Your task to perform on an android device: Turn off the flashlight Image 0: 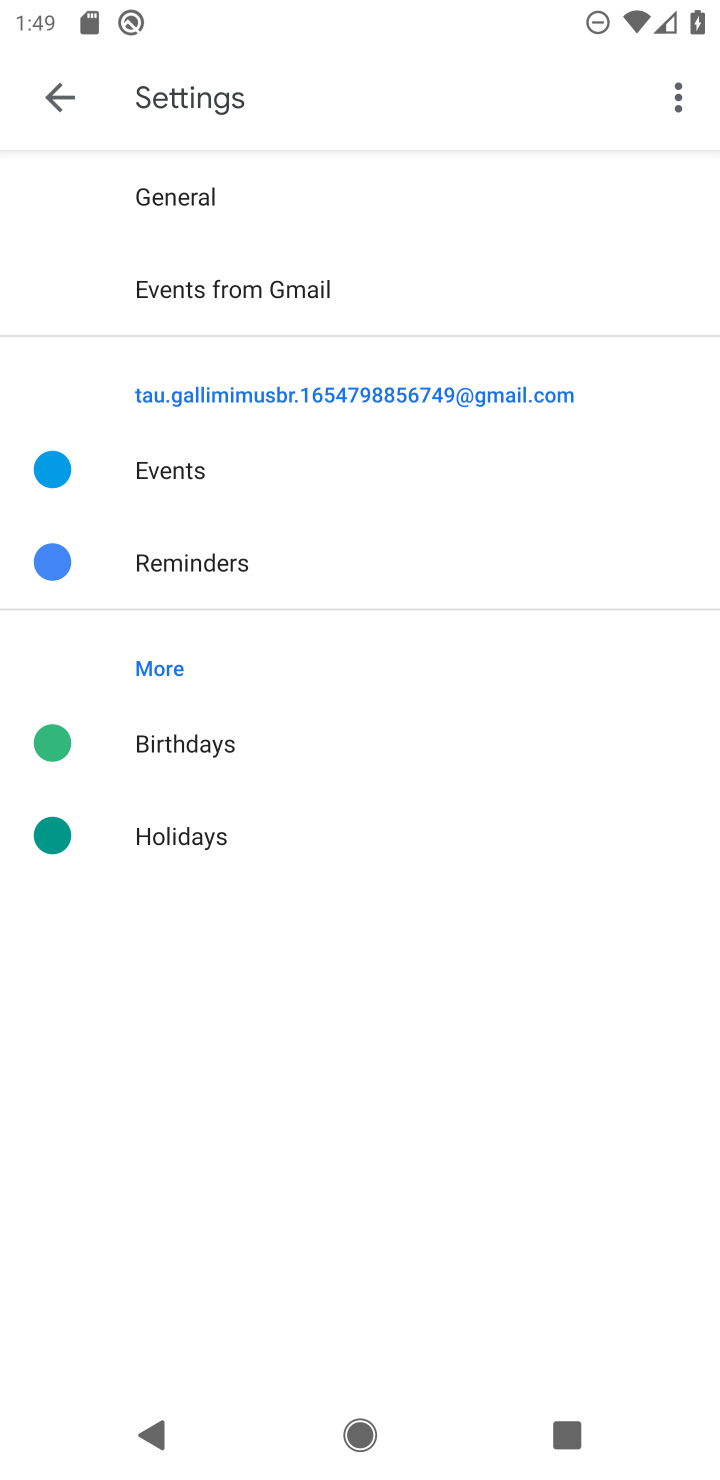
Step 0: press home button
Your task to perform on an android device: Turn off the flashlight Image 1: 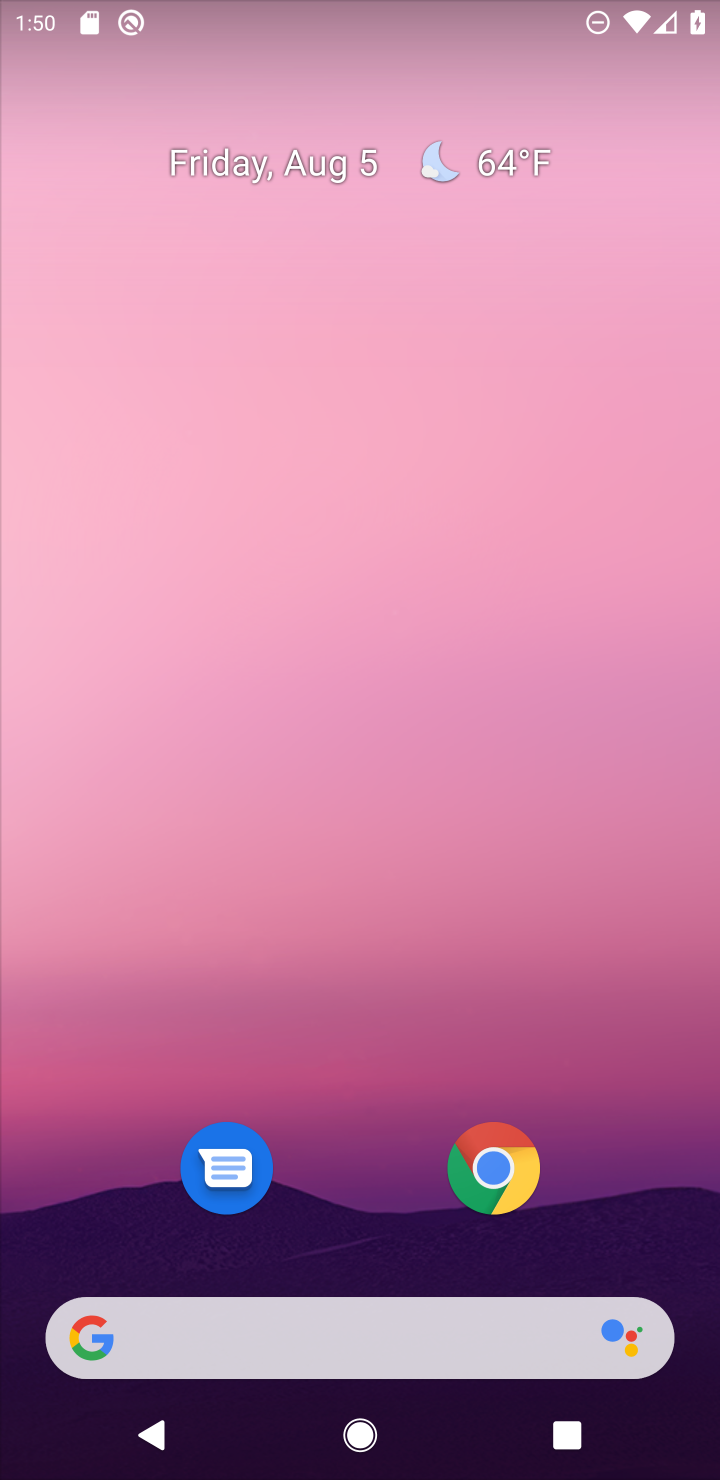
Step 1: drag from (700, 1022) to (339, 45)
Your task to perform on an android device: Turn off the flashlight Image 2: 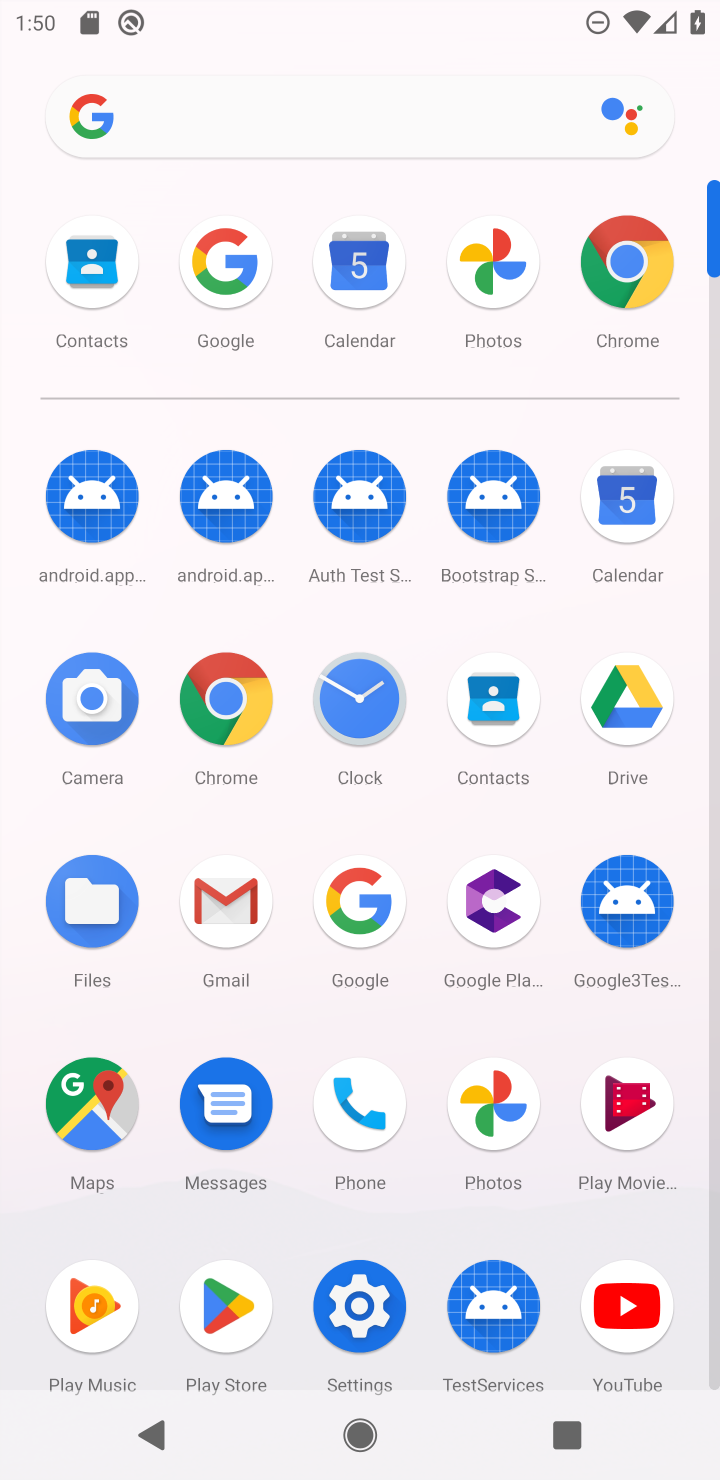
Step 2: click (378, 1330)
Your task to perform on an android device: Turn off the flashlight Image 3: 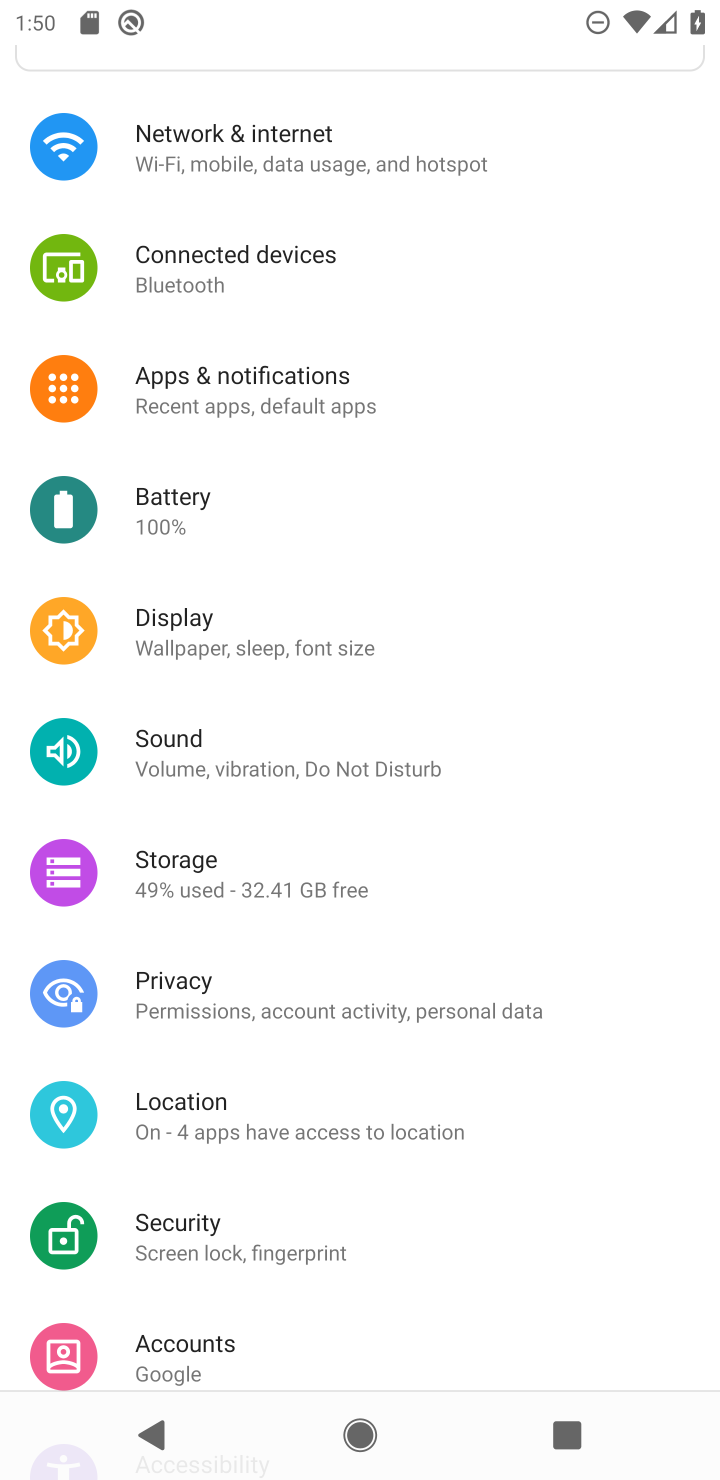
Step 3: task complete